Your task to perform on an android device: check android version Image 0: 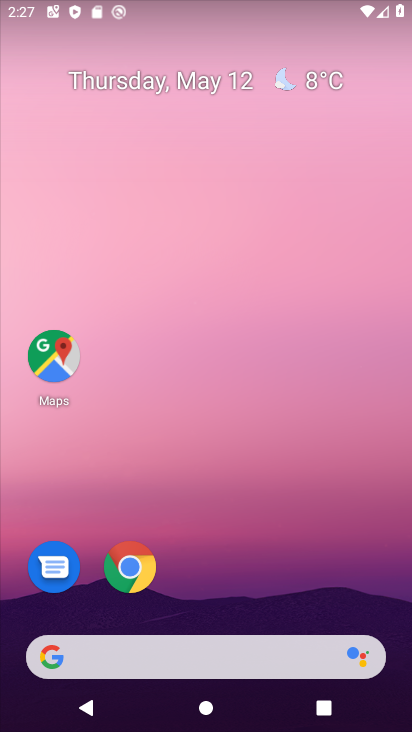
Step 0: drag from (209, 622) to (238, 167)
Your task to perform on an android device: check android version Image 1: 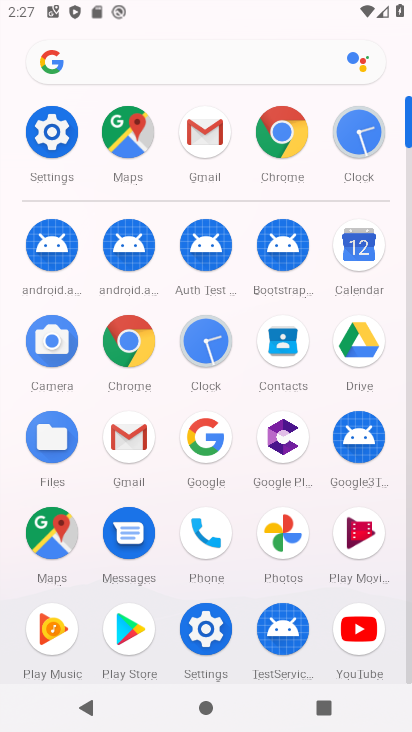
Step 1: click (49, 140)
Your task to perform on an android device: check android version Image 2: 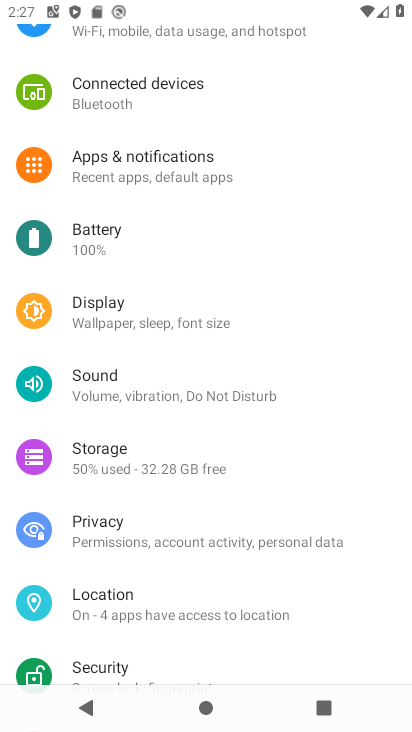
Step 2: drag from (117, 659) to (189, 216)
Your task to perform on an android device: check android version Image 3: 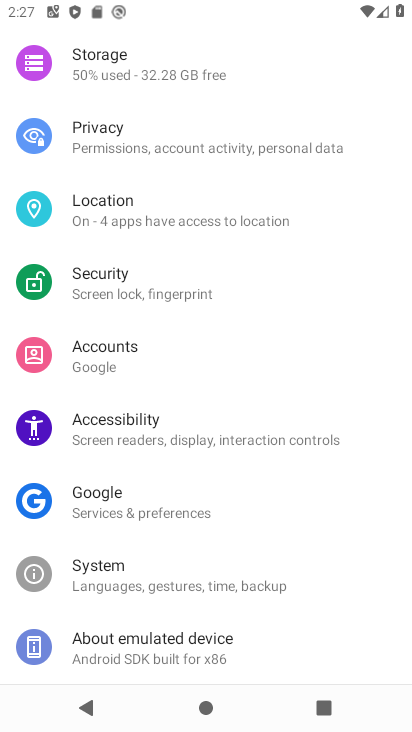
Step 3: drag from (150, 589) to (190, 211)
Your task to perform on an android device: check android version Image 4: 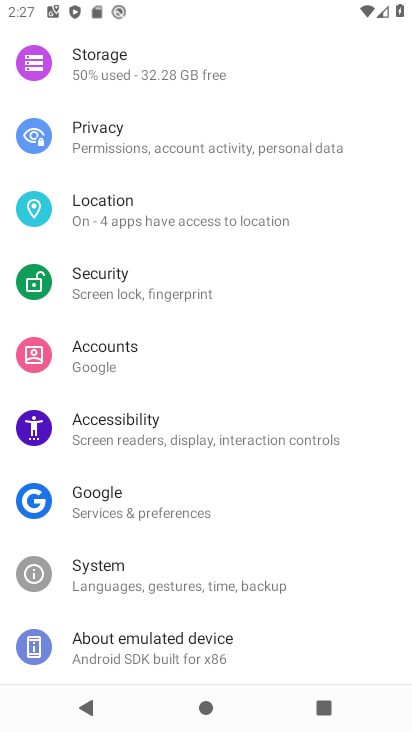
Step 4: click (169, 657)
Your task to perform on an android device: check android version Image 5: 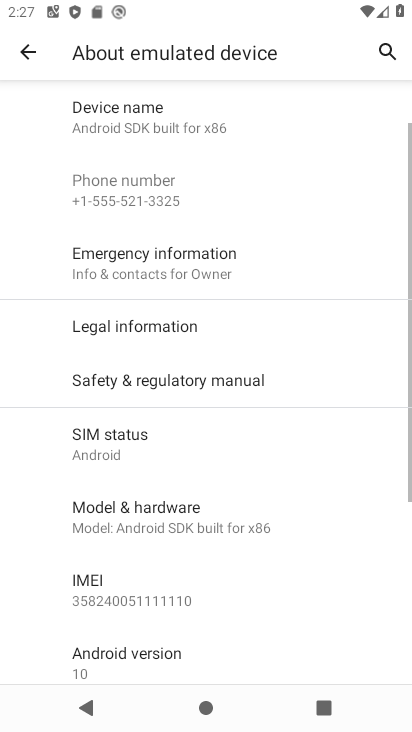
Step 5: drag from (158, 623) to (173, 475)
Your task to perform on an android device: check android version Image 6: 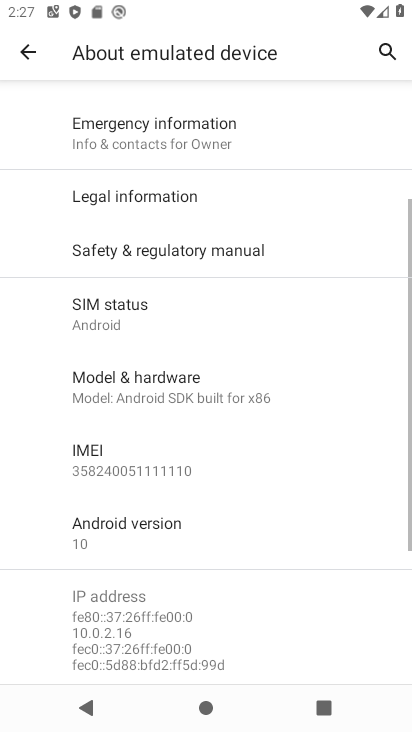
Step 6: click (132, 559)
Your task to perform on an android device: check android version Image 7: 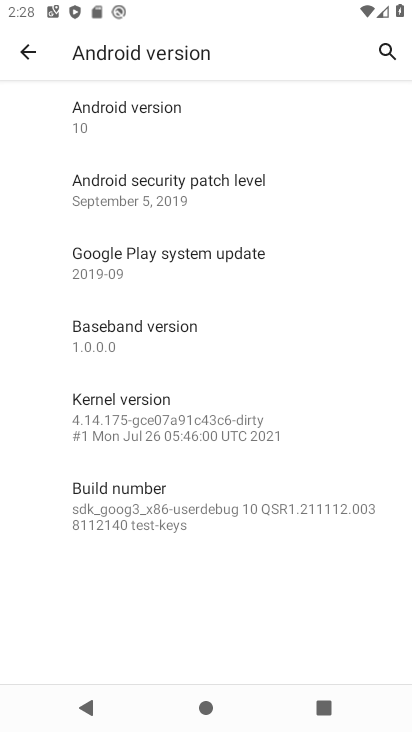
Step 7: task complete